Your task to perform on an android device: Open CNN.com Image 0: 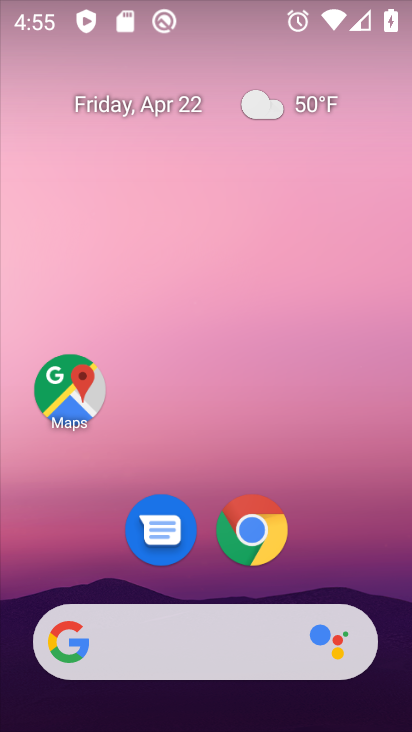
Step 0: drag from (337, 568) to (348, 132)
Your task to perform on an android device: Open CNN.com Image 1: 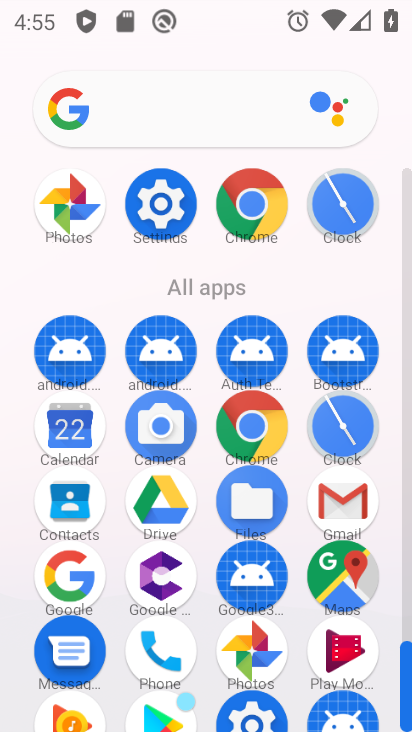
Step 1: click (268, 422)
Your task to perform on an android device: Open CNN.com Image 2: 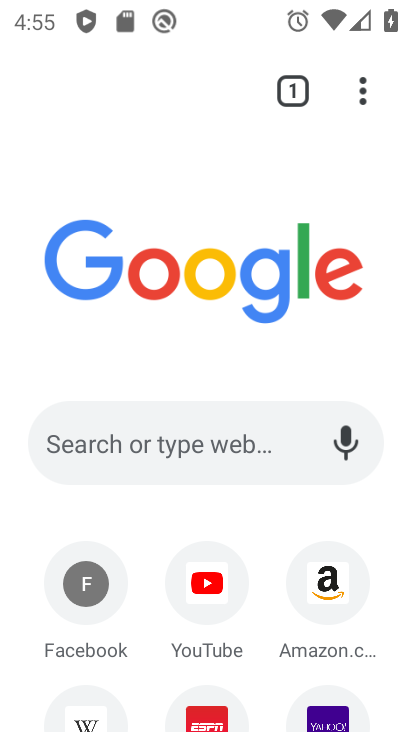
Step 2: click (223, 430)
Your task to perform on an android device: Open CNN.com Image 3: 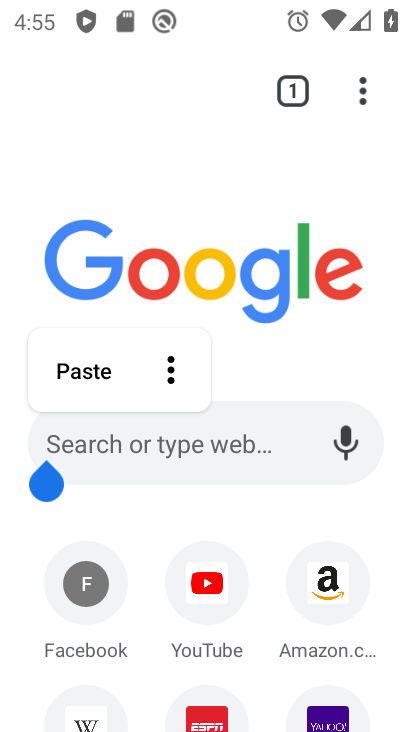
Step 3: click (215, 441)
Your task to perform on an android device: Open CNN.com Image 4: 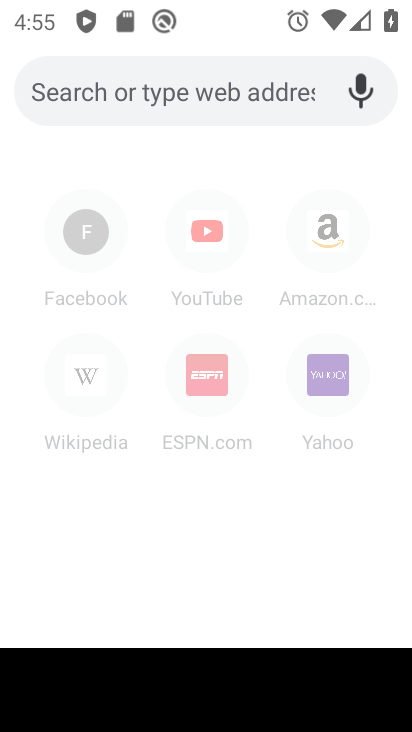
Step 4: type "CNN.com"
Your task to perform on an android device: Open CNN.com Image 5: 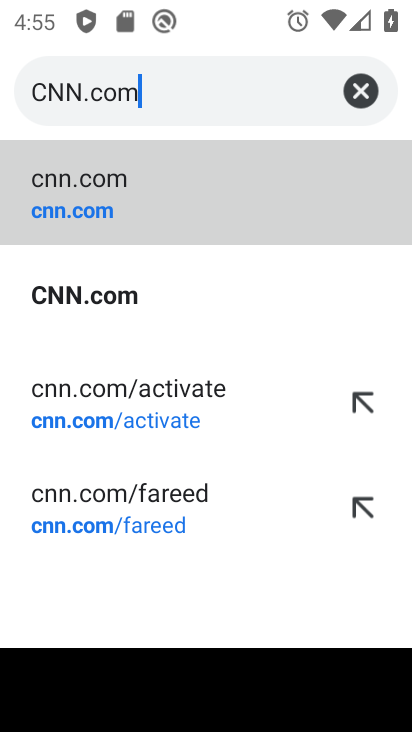
Step 5: click (89, 207)
Your task to perform on an android device: Open CNN.com Image 6: 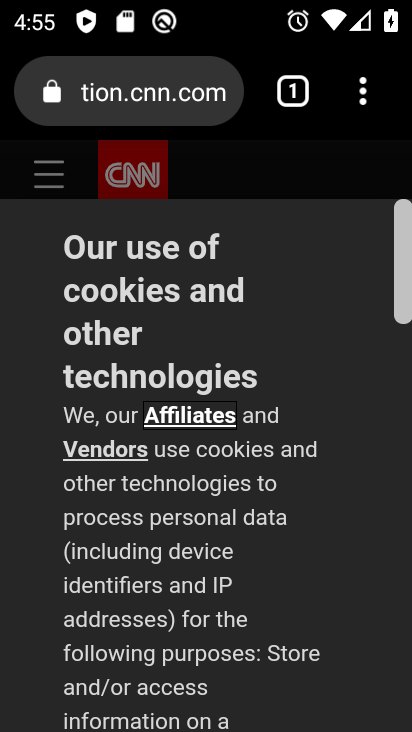
Step 6: task complete